Your task to perform on an android device: Go to network settings Image 0: 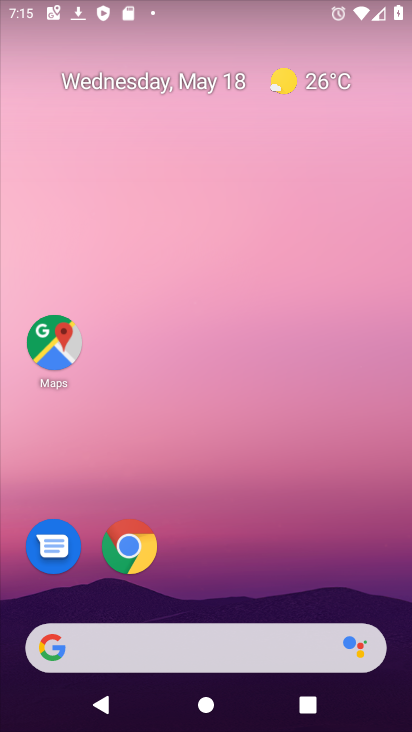
Step 0: press home button
Your task to perform on an android device: Go to network settings Image 1: 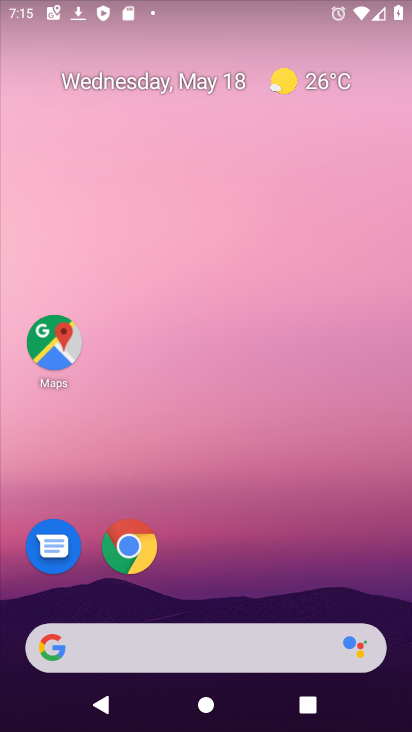
Step 1: drag from (386, 600) to (278, 90)
Your task to perform on an android device: Go to network settings Image 2: 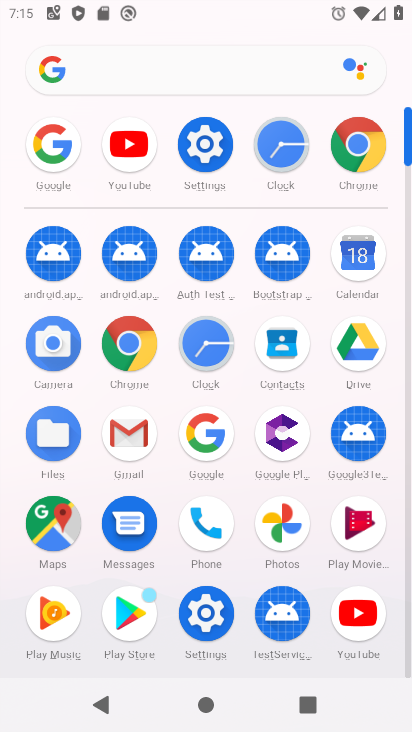
Step 2: click (195, 134)
Your task to perform on an android device: Go to network settings Image 3: 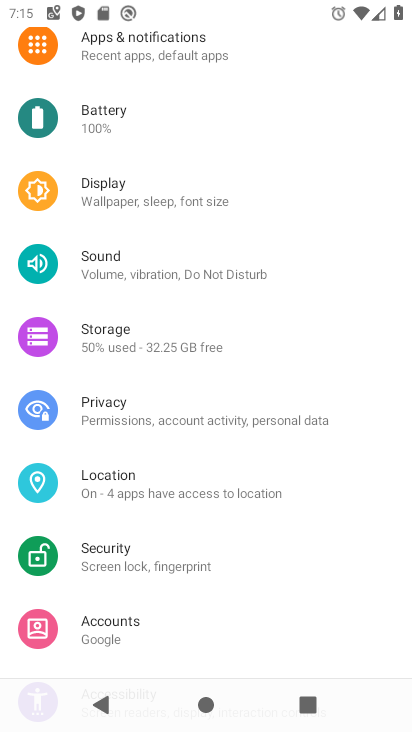
Step 3: drag from (186, 125) to (234, 572)
Your task to perform on an android device: Go to network settings Image 4: 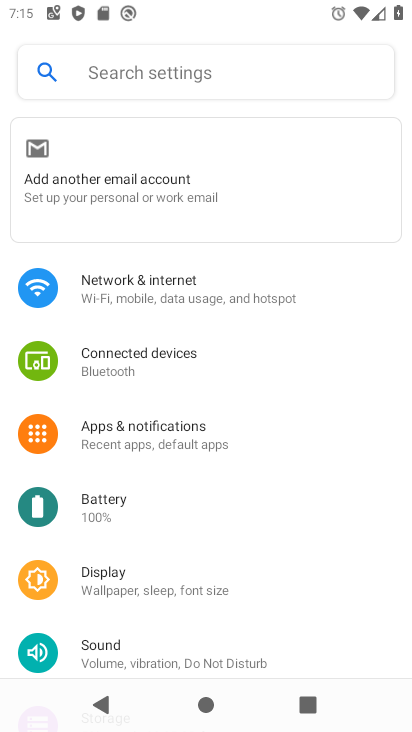
Step 4: click (155, 268)
Your task to perform on an android device: Go to network settings Image 5: 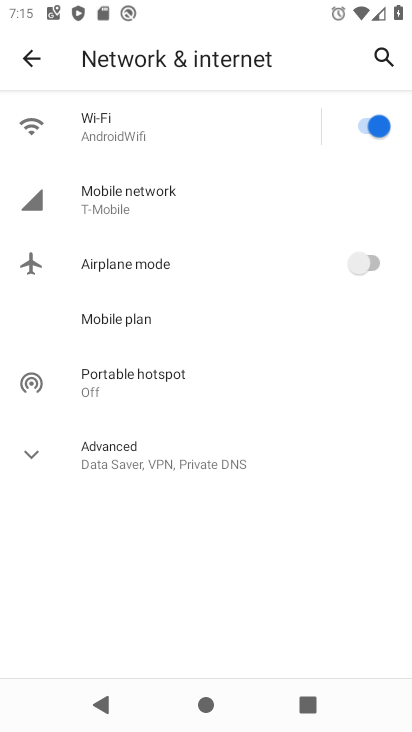
Step 5: task complete